Your task to perform on an android device: delete browsing data in the chrome app Image 0: 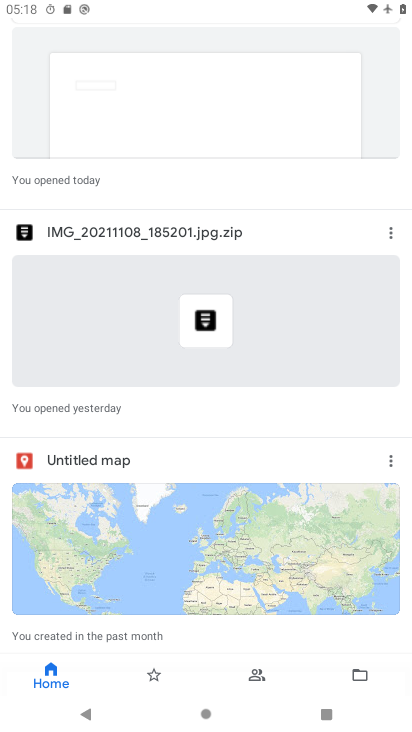
Step 0: press home button
Your task to perform on an android device: delete browsing data in the chrome app Image 1: 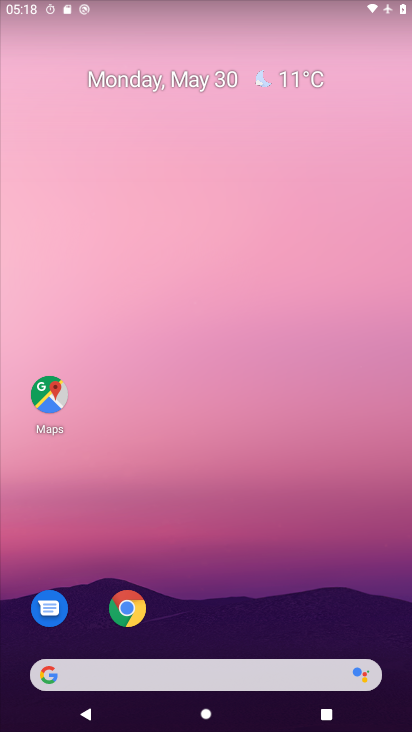
Step 1: click (141, 603)
Your task to perform on an android device: delete browsing data in the chrome app Image 2: 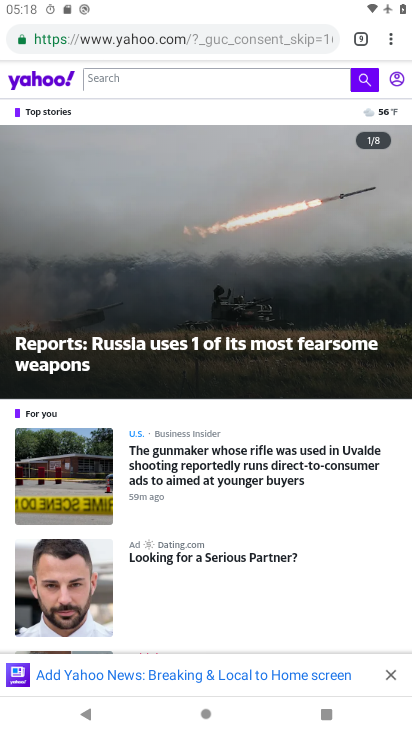
Step 2: click (389, 39)
Your task to perform on an android device: delete browsing data in the chrome app Image 3: 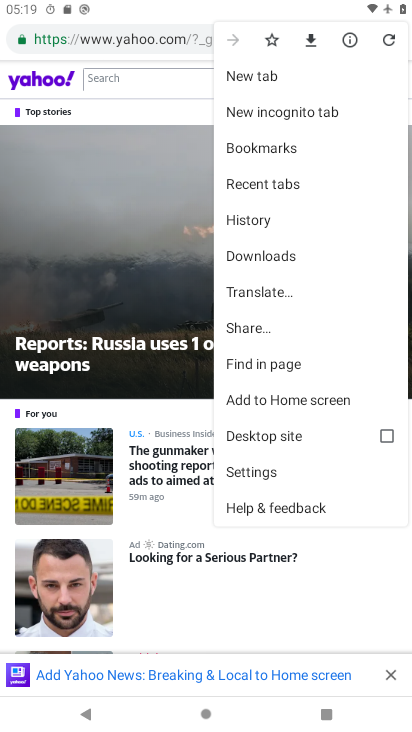
Step 3: click (274, 224)
Your task to perform on an android device: delete browsing data in the chrome app Image 4: 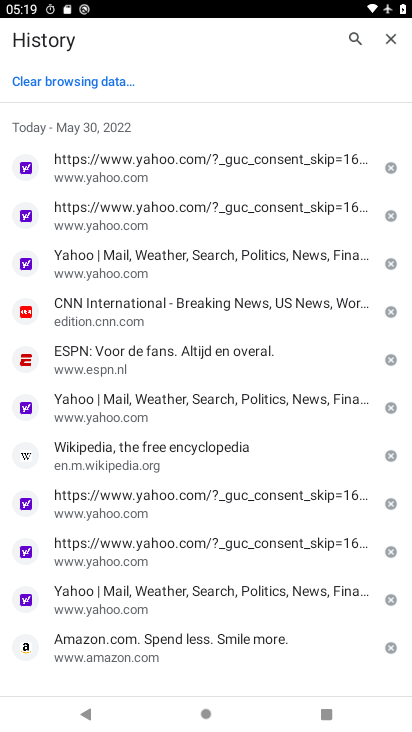
Step 4: click (102, 84)
Your task to perform on an android device: delete browsing data in the chrome app Image 5: 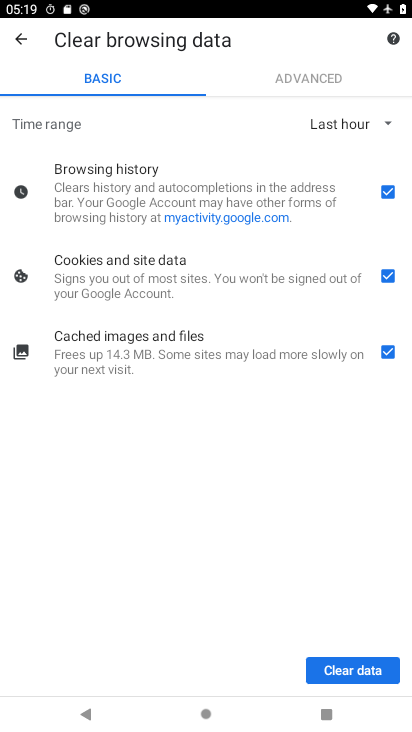
Step 5: click (364, 665)
Your task to perform on an android device: delete browsing data in the chrome app Image 6: 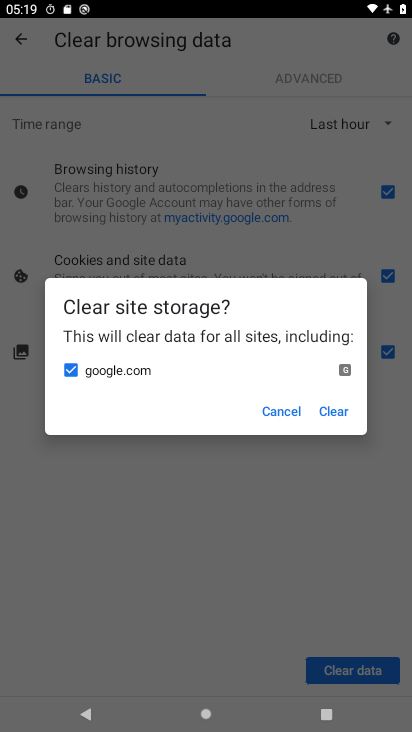
Step 6: click (346, 413)
Your task to perform on an android device: delete browsing data in the chrome app Image 7: 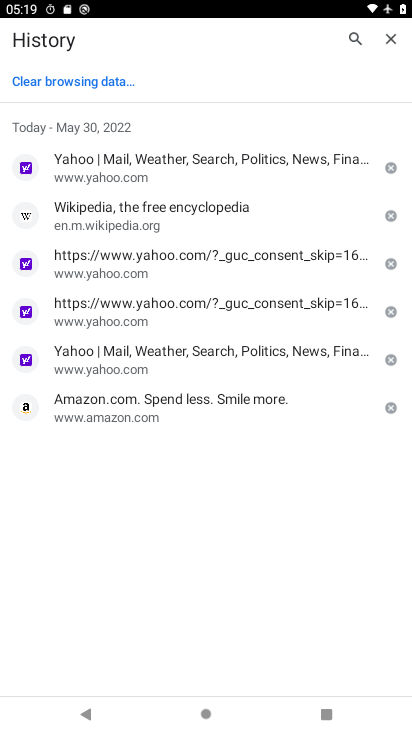
Step 7: task complete